Your task to perform on an android device: open app "Indeed Job Search" (install if not already installed), go to login, and select forgot password Image 0: 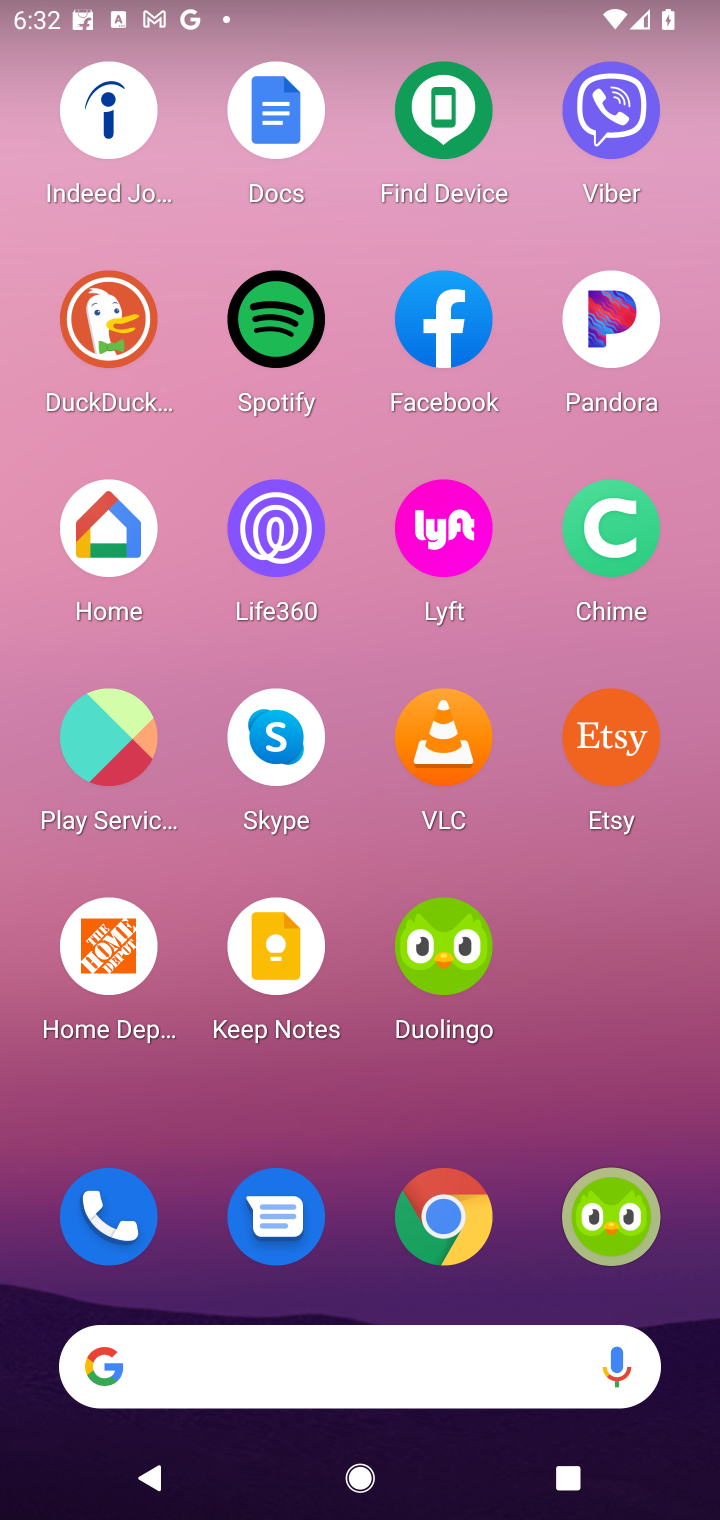
Step 0: drag from (373, 789) to (402, 151)
Your task to perform on an android device: open app "Indeed Job Search" (install if not already installed), go to login, and select forgot password Image 1: 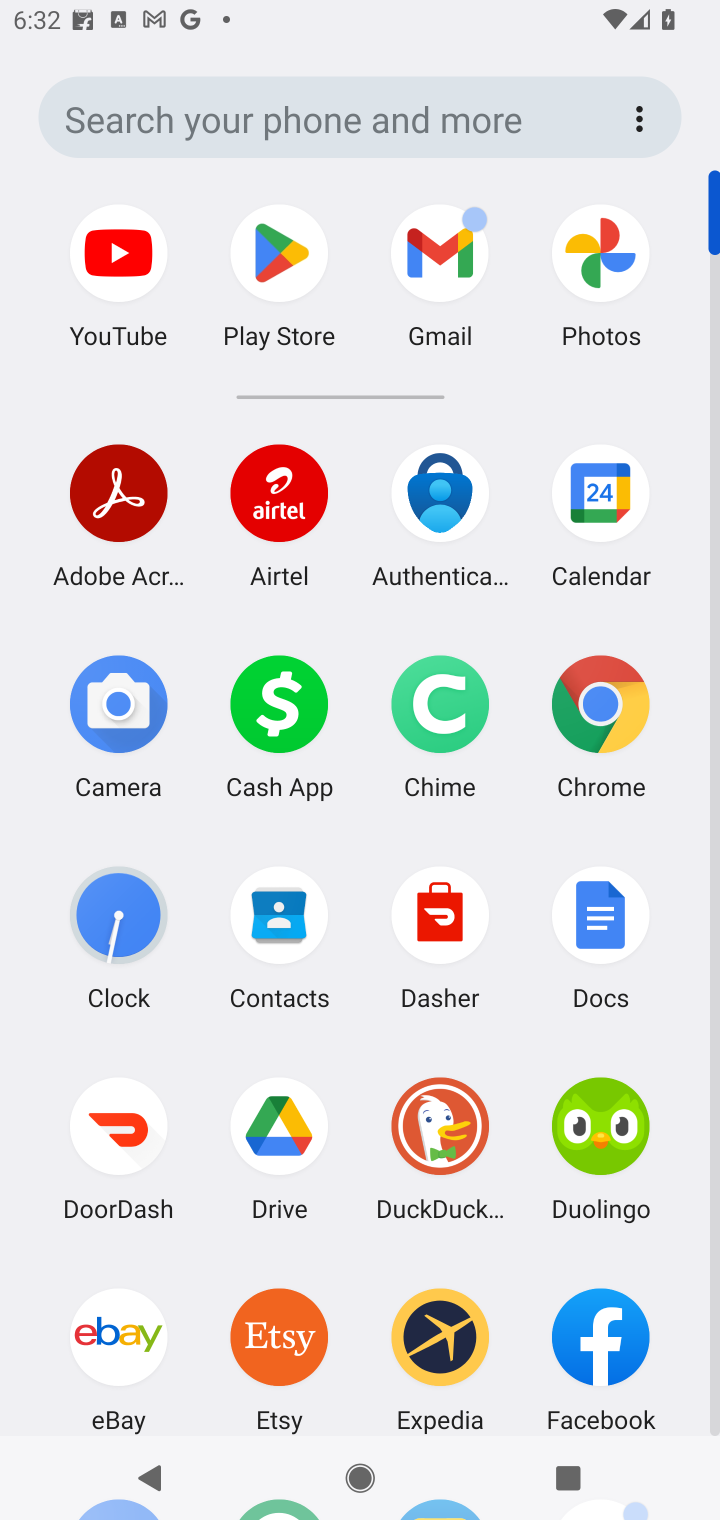
Step 1: click (274, 273)
Your task to perform on an android device: open app "Indeed Job Search" (install if not already installed), go to login, and select forgot password Image 2: 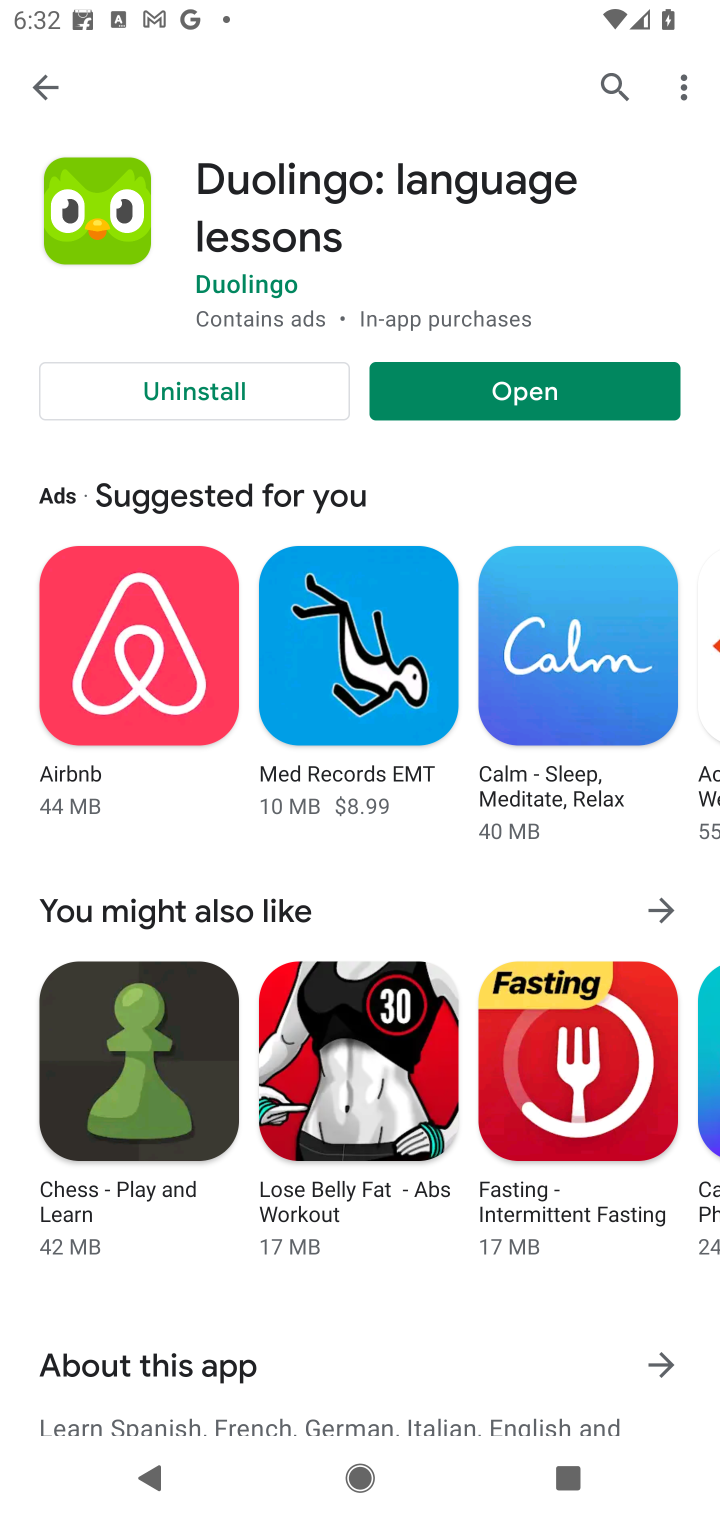
Step 2: click (607, 95)
Your task to perform on an android device: open app "Indeed Job Search" (install if not already installed), go to login, and select forgot password Image 3: 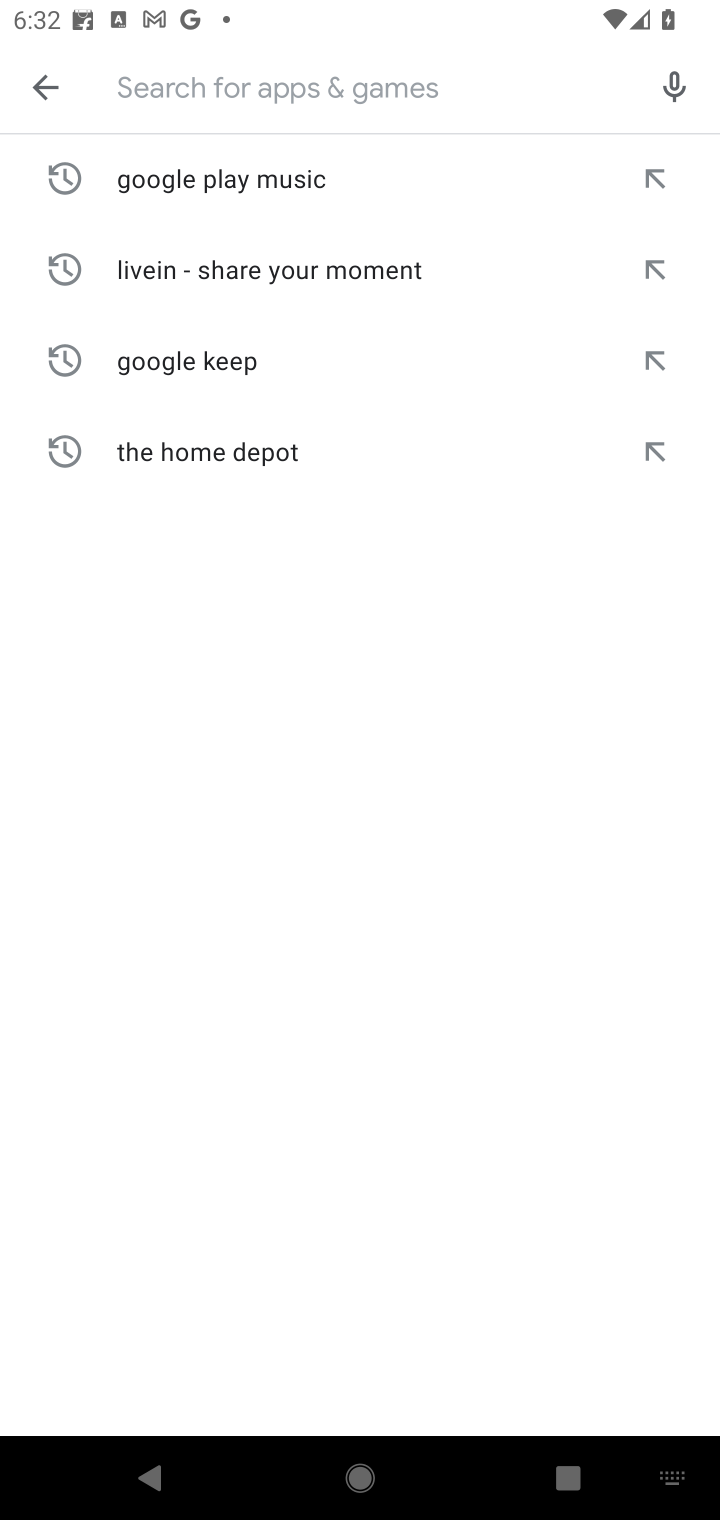
Step 3: type "Indeed Job Search"
Your task to perform on an android device: open app "Indeed Job Search" (install if not already installed), go to login, and select forgot password Image 4: 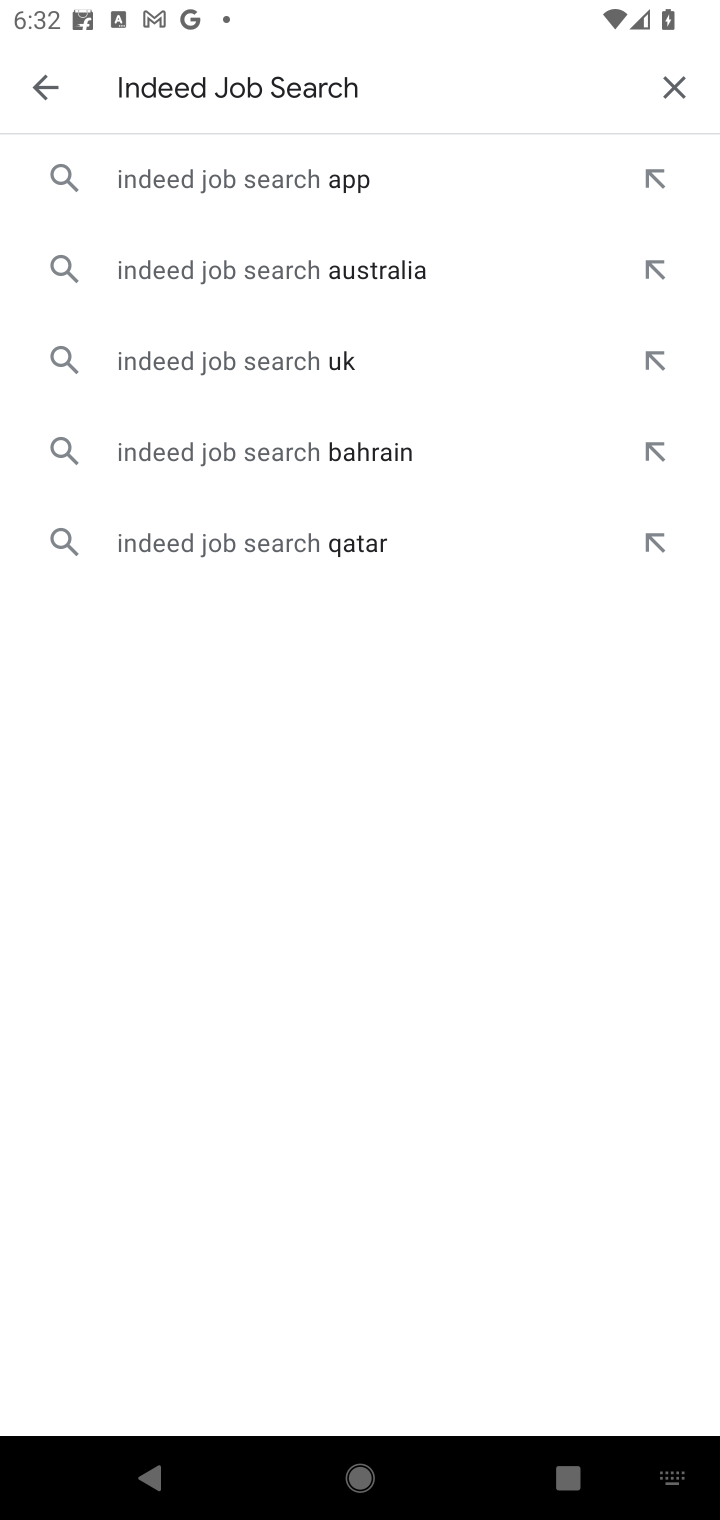
Step 4: click (368, 199)
Your task to perform on an android device: open app "Indeed Job Search" (install if not already installed), go to login, and select forgot password Image 5: 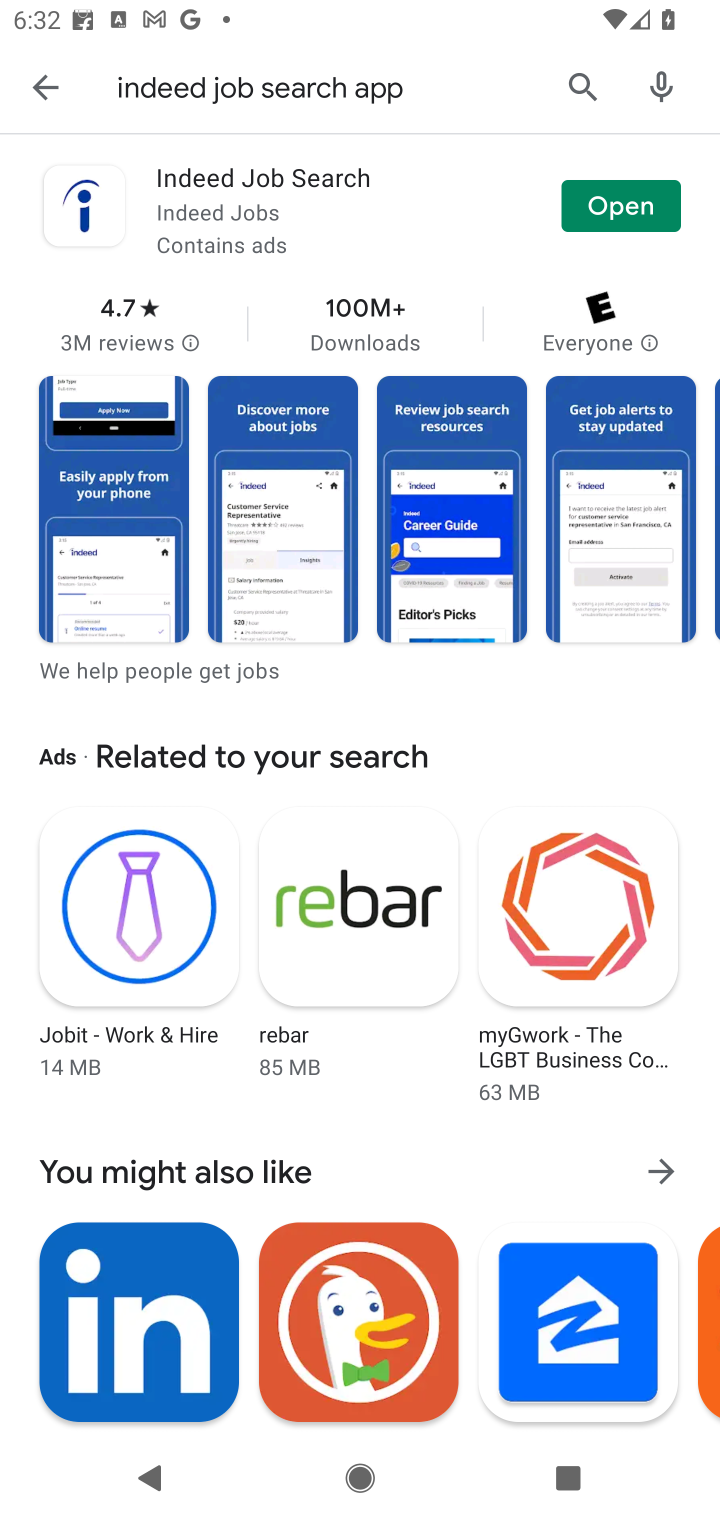
Step 5: click (589, 201)
Your task to perform on an android device: open app "Indeed Job Search" (install if not already installed), go to login, and select forgot password Image 6: 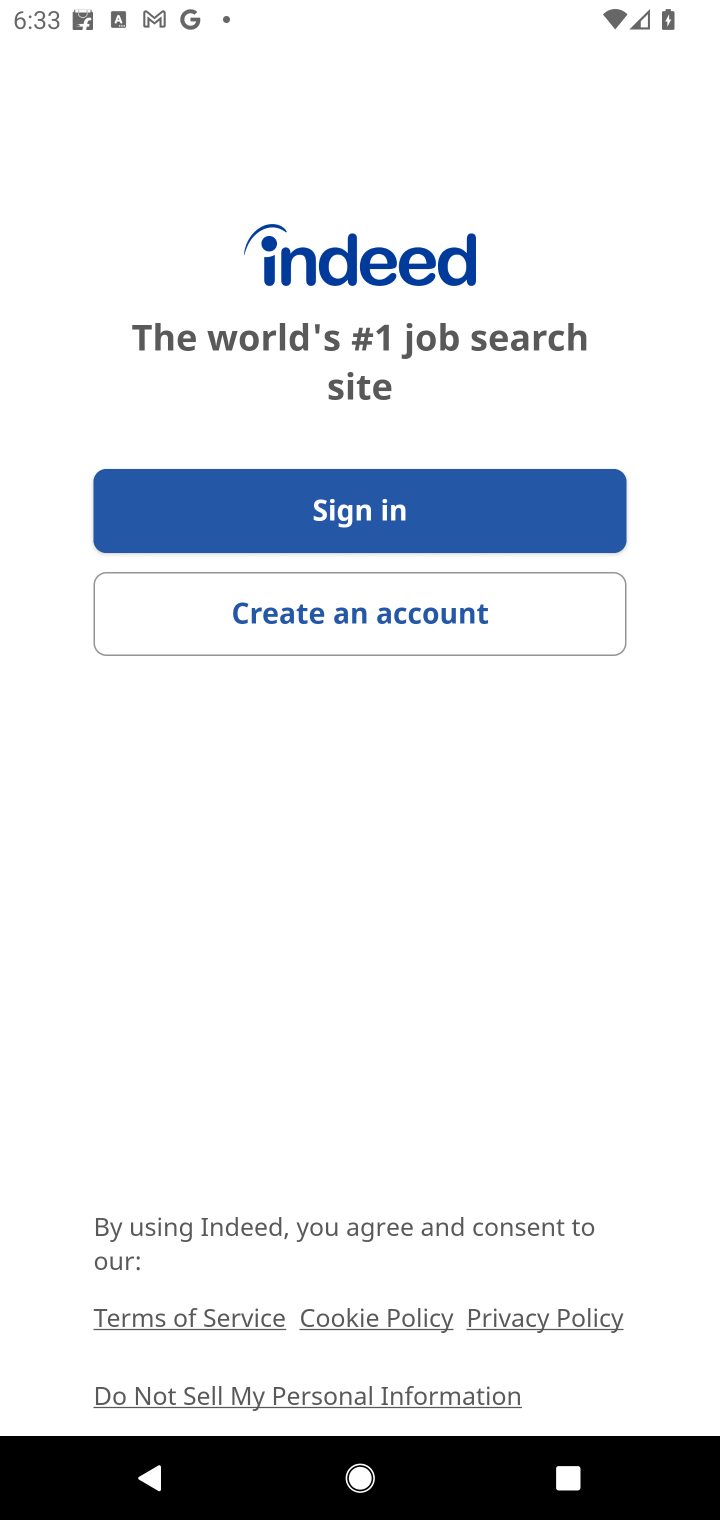
Step 6: task complete